Your task to perform on an android device: Show me popular games on the Play Store Image 0: 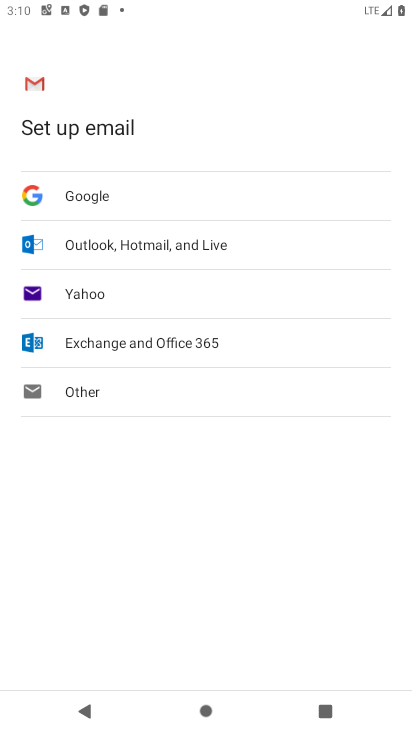
Step 0: press home button
Your task to perform on an android device: Show me popular games on the Play Store Image 1: 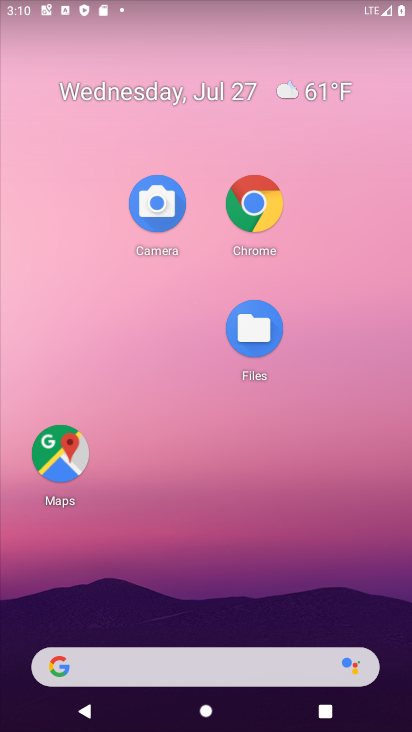
Step 1: drag from (190, 604) to (250, 0)
Your task to perform on an android device: Show me popular games on the Play Store Image 2: 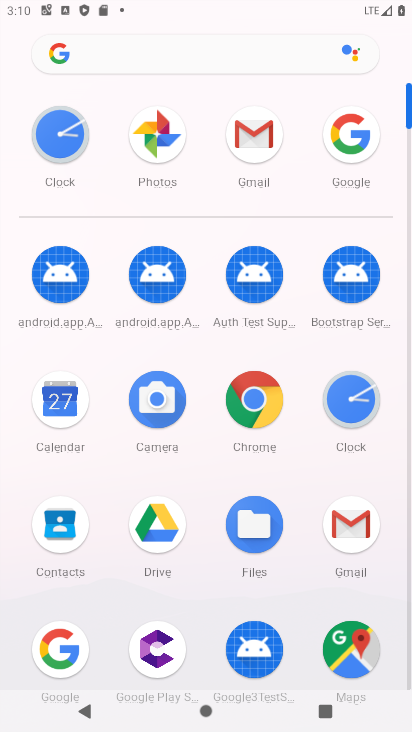
Step 2: drag from (113, 598) to (164, 345)
Your task to perform on an android device: Show me popular games on the Play Store Image 3: 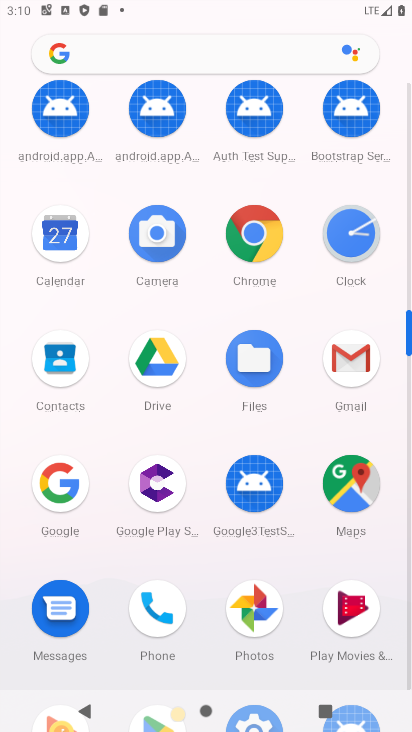
Step 3: drag from (153, 659) to (171, 346)
Your task to perform on an android device: Show me popular games on the Play Store Image 4: 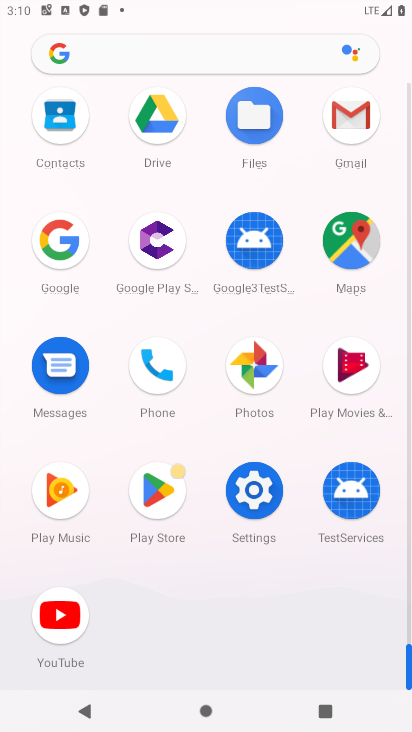
Step 4: click (165, 515)
Your task to perform on an android device: Show me popular games on the Play Store Image 5: 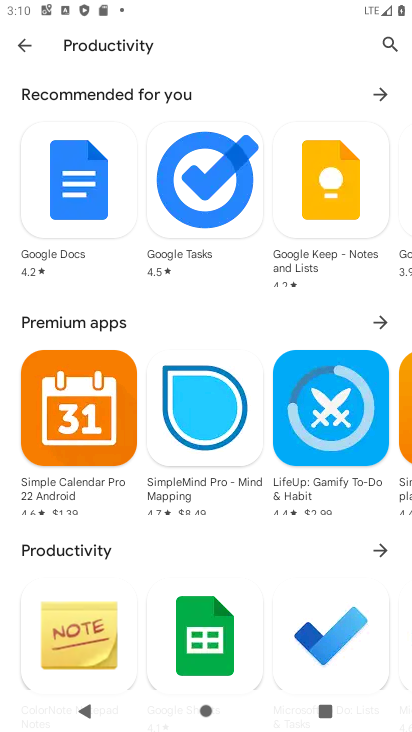
Step 5: click (22, 49)
Your task to perform on an android device: Show me popular games on the Play Store Image 6: 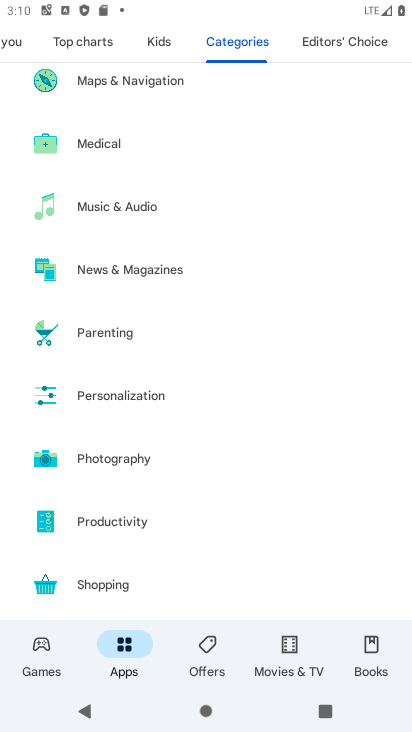
Step 6: click (50, 642)
Your task to perform on an android device: Show me popular games on the Play Store Image 7: 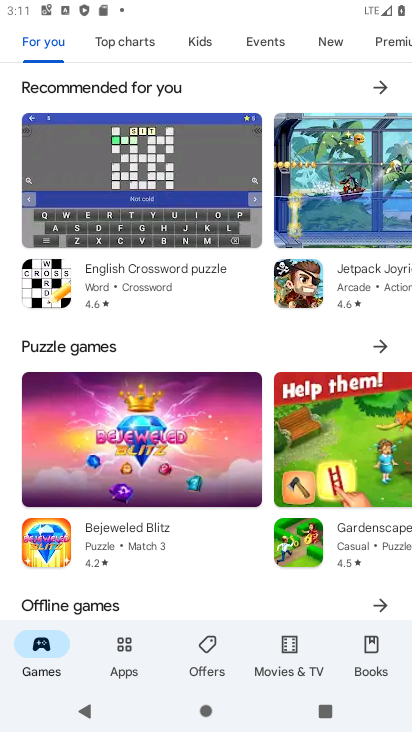
Step 7: click (106, 45)
Your task to perform on an android device: Show me popular games on the Play Store Image 8: 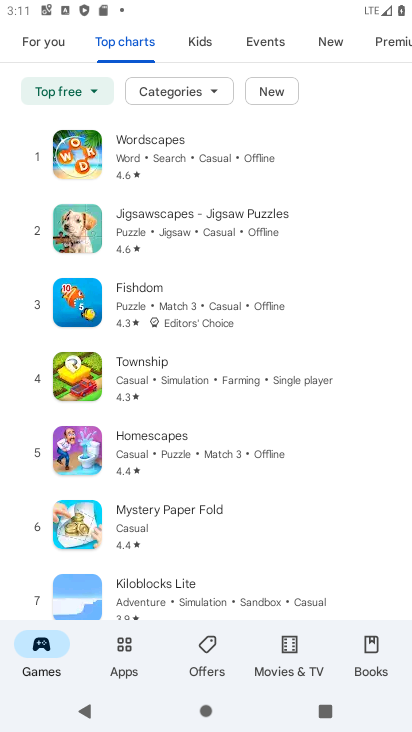
Step 8: task complete